Your task to perform on an android device: see sites visited before in the chrome app Image 0: 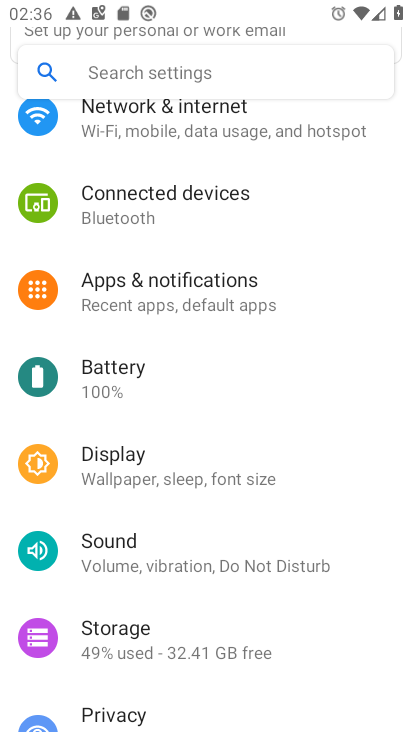
Step 0: press home button
Your task to perform on an android device: see sites visited before in the chrome app Image 1: 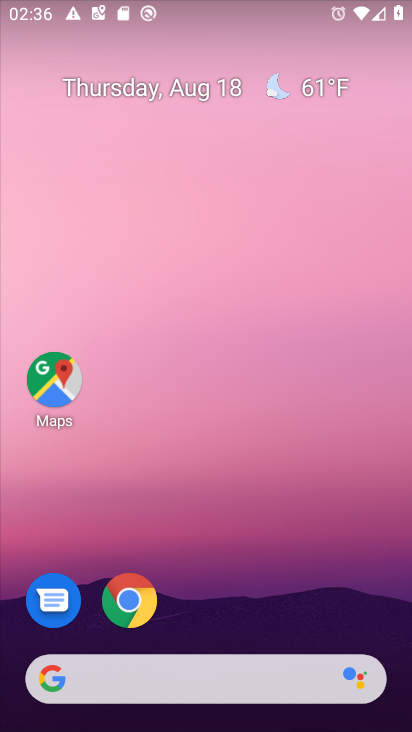
Step 1: click (137, 587)
Your task to perform on an android device: see sites visited before in the chrome app Image 2: 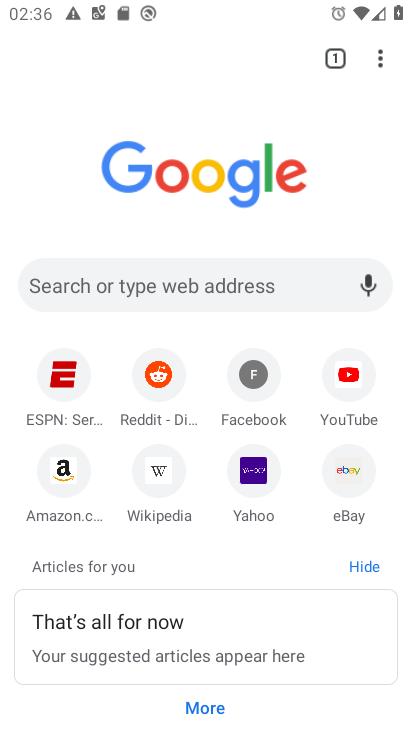
Step 2: task complete